Your task to perform on an android device: Toggle the flashlight Image 0: 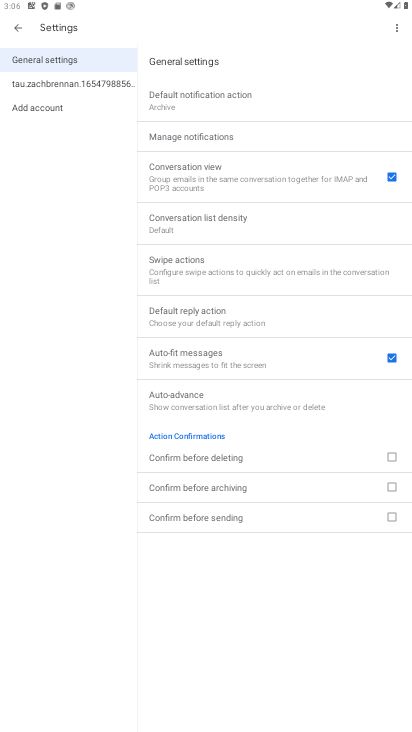
Step 0: press home button
Your task to perform on an android device: Toggle the flashlight Image 1: 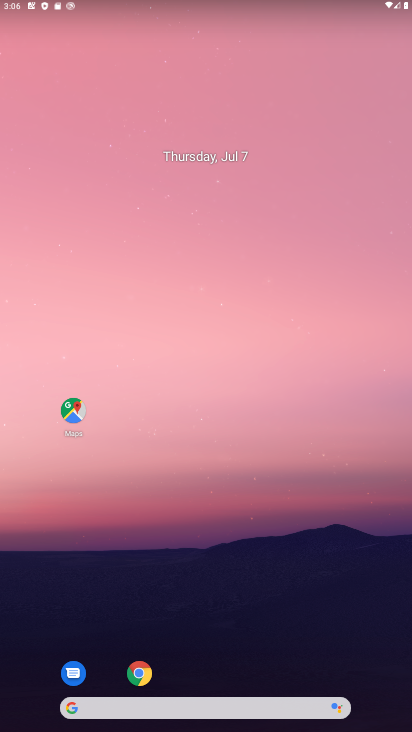
Step 1: task complete